Your task to perform on an android device: Check the weather Image 0: 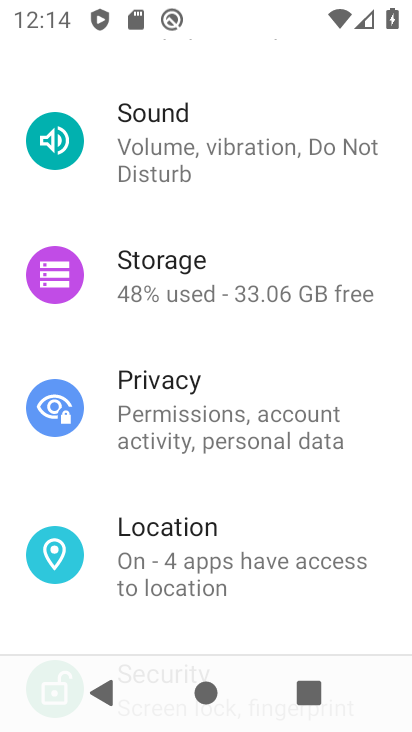
Step 0: press back button
Your task to perform on an android device: Check the weather Image 1: 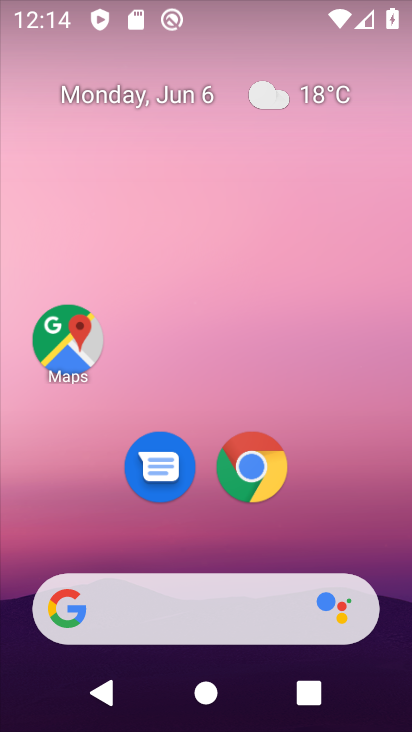
Step 1: drag from (336, 512) to (296, 119)
Your task to perform on an android device: Check the weather Image 2: 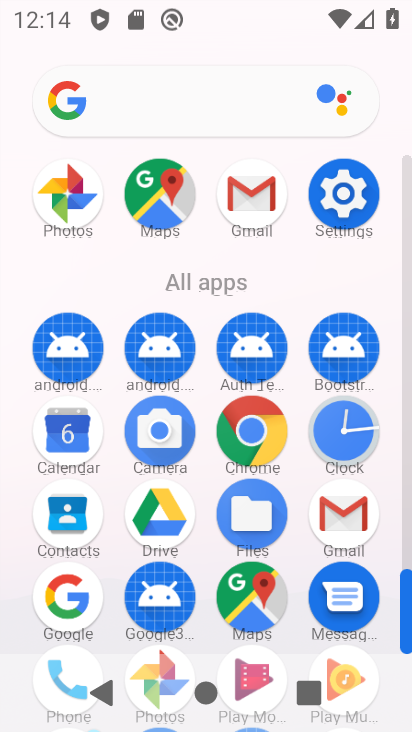
Step 2: drag from (296, 312) to (301, 176)
Your task to perform on an android device: Check the weather Image 3: 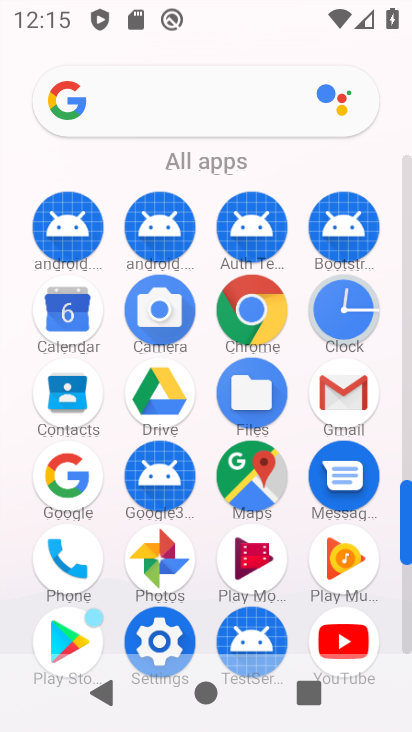
Step 3: click (61, 475)
Your task to perform on an android device: Check the weather Image 4: 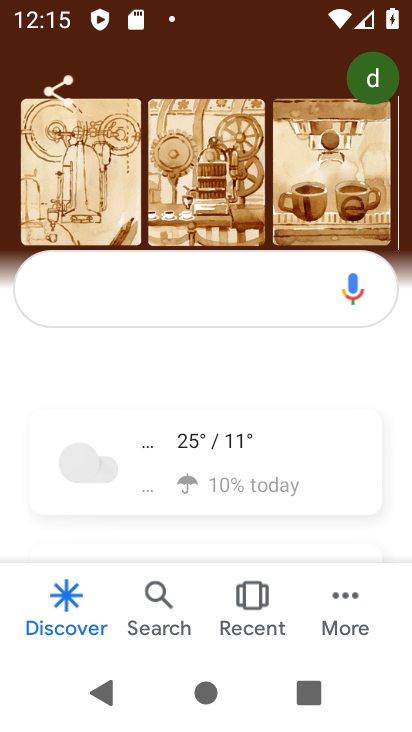
Step 4: click (213, 464)
Your task to perform on an android device: Check the weather Image 5: 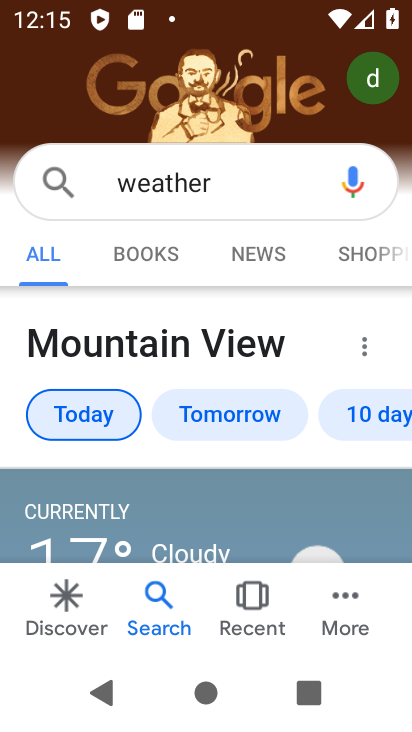
Step 5: task complete